Your task to perform on an android device: snooze an email in the gmail app Image 0: 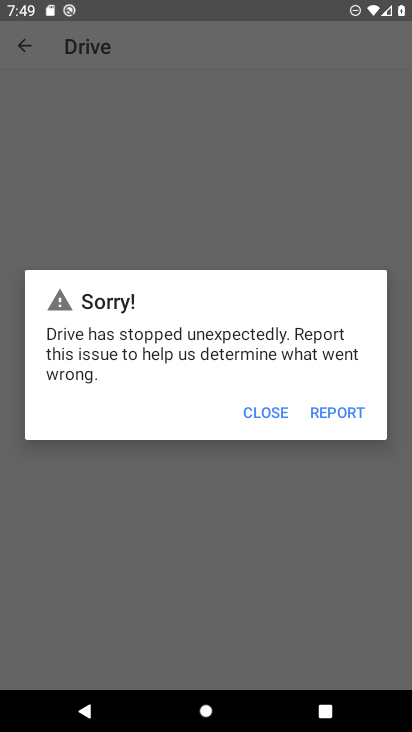
Step 0: press home button
Your task to perform on an android device: snooze an email in the gmail app Image 1: 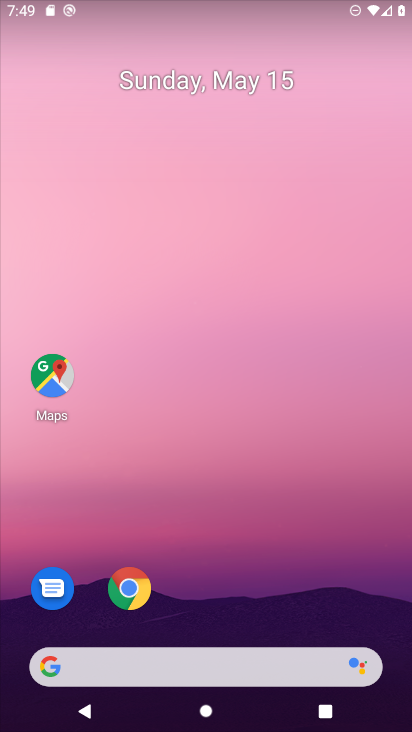
Step 1: drag from (198, 627) to (230, 110)
Your task to perform on an android device: snooze an email in the gmail app Image 2: 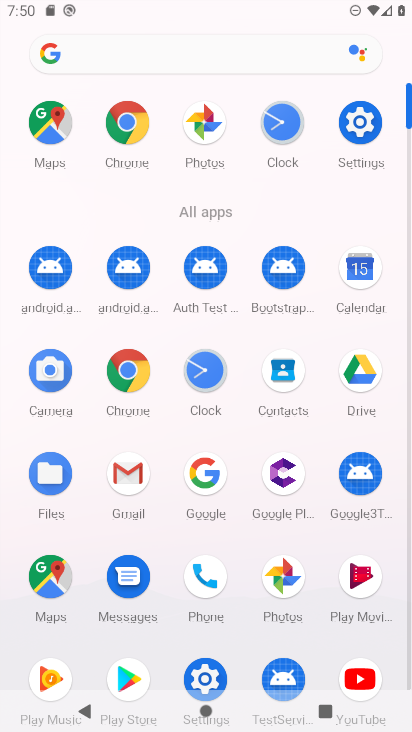
Step 2: click (122, 463)
Your task to perform on an android device: snooze an email in the gmail app Image 3: 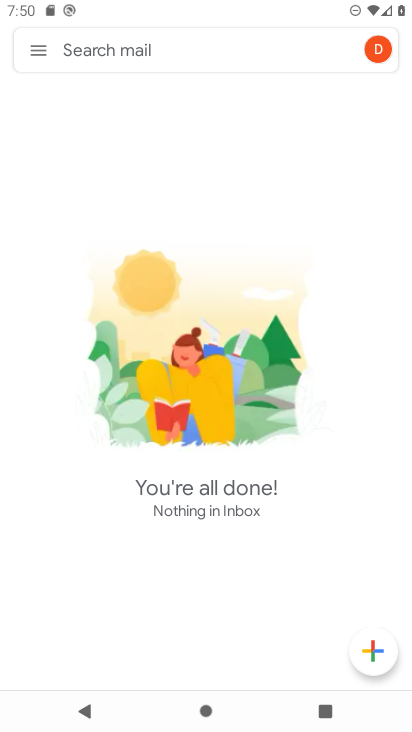
Step 3: task complete